Your task to perform on an android device: Go to ESPN.com Image 0: 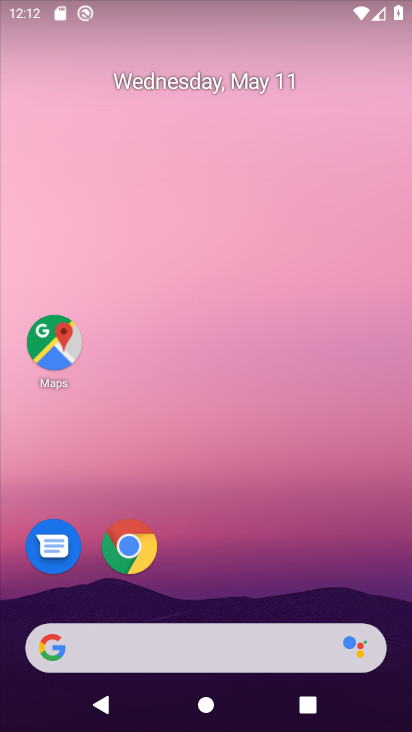
Step 0: drag from (218, 498) to (220, 260)
Your task to perform on an android device: Go to ESPN.com Image 1: 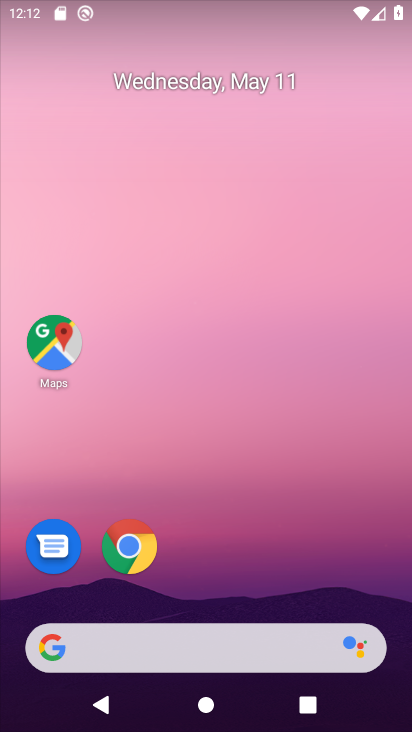
Step 1: drag from (225, 603) to (221, 214)
Your task to perform on an android device: Go to ESPN.com Image 2: 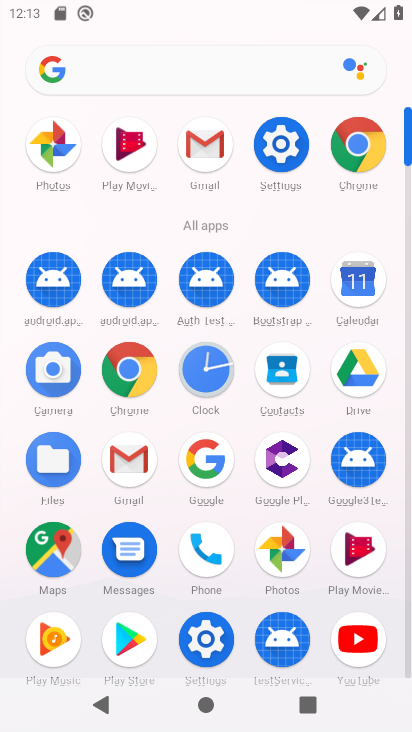
Step 2: click (371, 139)
Your task to perform on an android device: Go to ESPN.com Image 3: 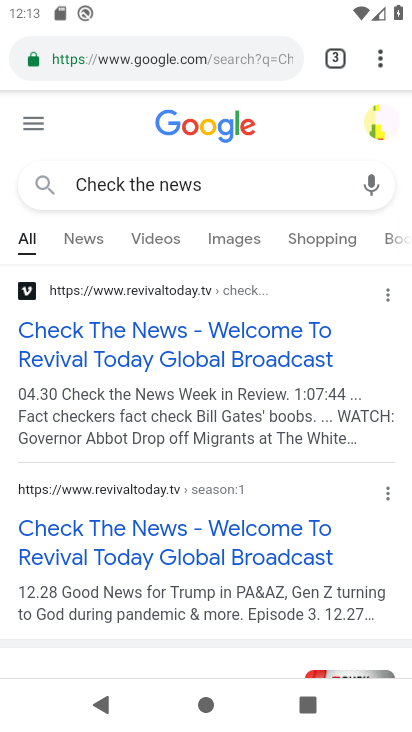
Step 3: click (366, 58)
Your task to perform on an android device: Go to ESPN.com Image 4: 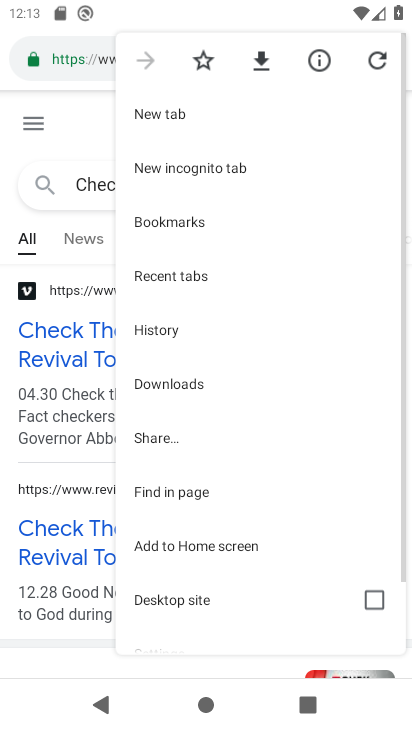
Step 4: click (149, 116)
Your task to perform on an android device: Go to ESPN.com Image 5: 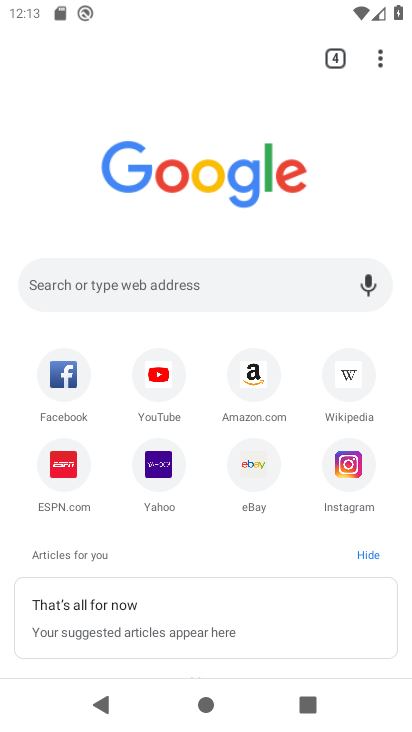
Step 5: click (70, 462)
Your task to perform on an android device: Go to ESPN.com Image 6: 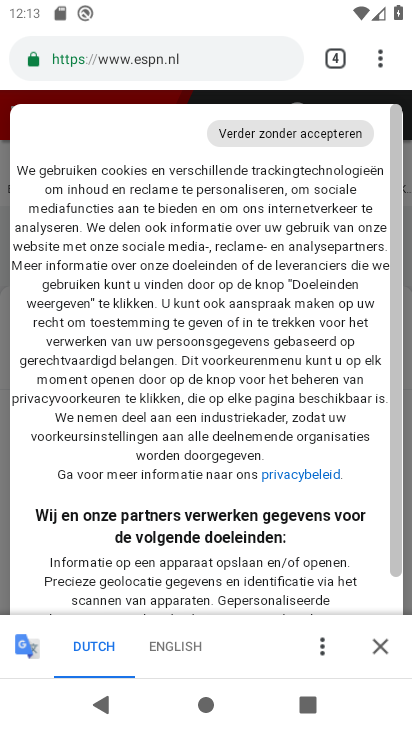
Step 6: task complete